Your task to perform on an android device: allow cookies in the chrome app Image 0: 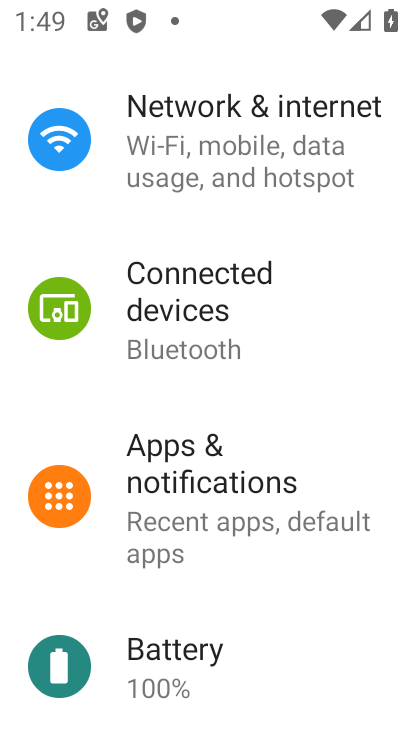
Step 0: press home button
Your task to perform on an android device: allow cookies in the chrome app Image 1: 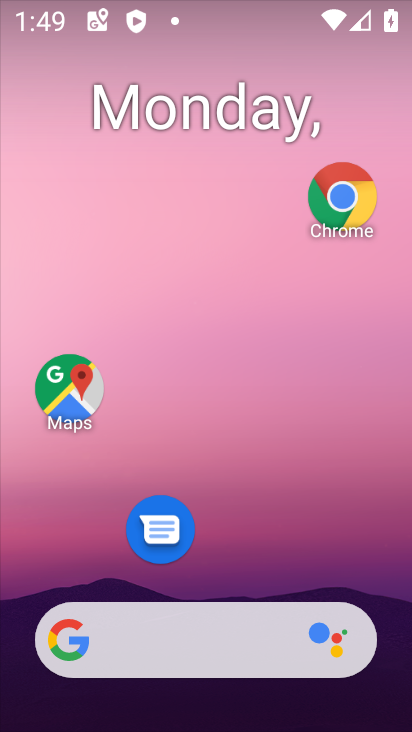
Step 1: click (357, 193)
Your task to perform on an android device: allow cookies in the chrome app Image 2: 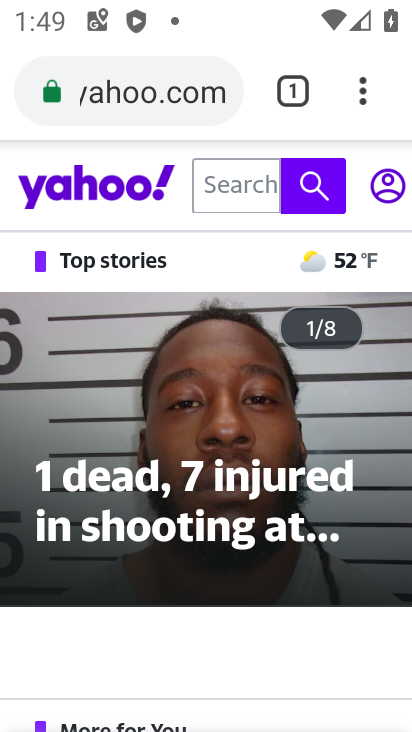
Step 2: click (373, 89)
Your task to perform on an android device: allow cookies in the chrome app Image 3: 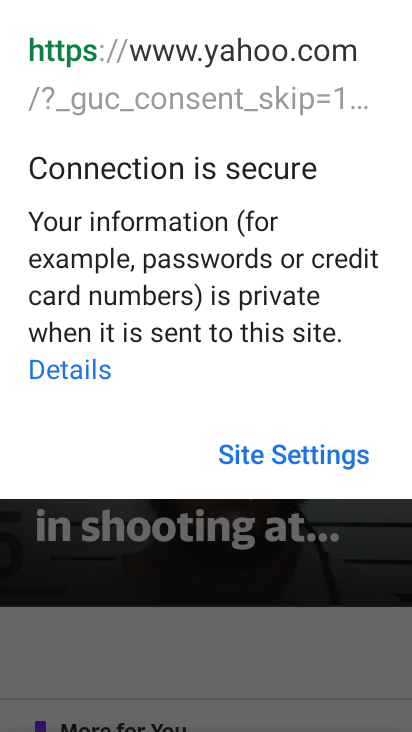
Step 3: drag from (372, 90) to (408, 420)
Your task to perform on an android device: allow cookies in the chrome app Image 4: 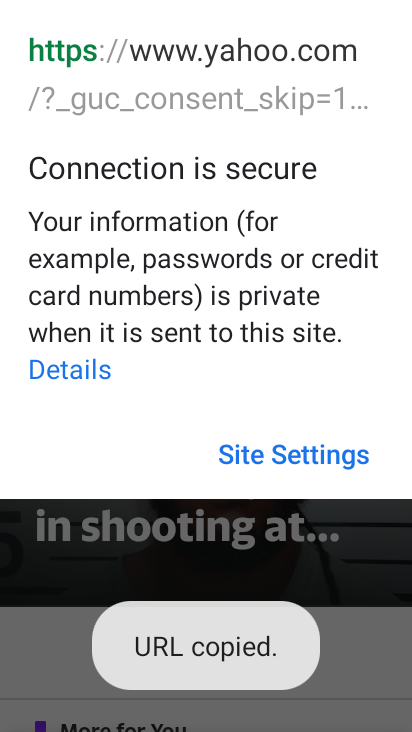
Step 4: click (371, 536)
Your task to perform on an android device: allow cookies in the chrome app Image 5: 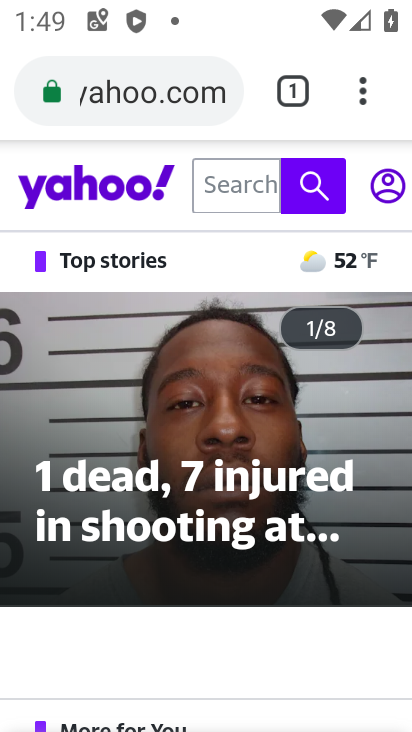
Step 5: click (371, 92)
Your task to perform on an android device: allow cookies in the chrome app Image 6: 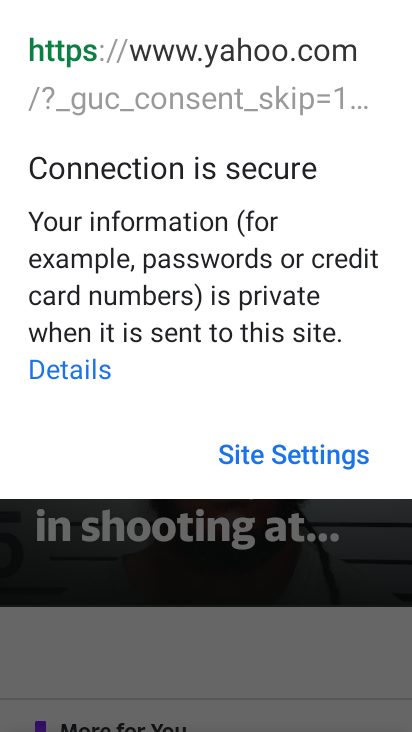
Step 6: click (338, 578)
Your task to perform on an android device: allow cookies in the chrome app Image 7: 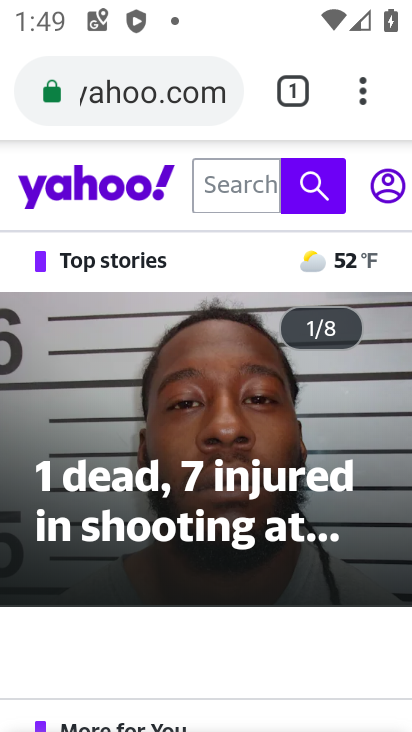
Step 7: click (362, 89)
Your task to perform on an android device: allow cookies in the chrome app Image 8: 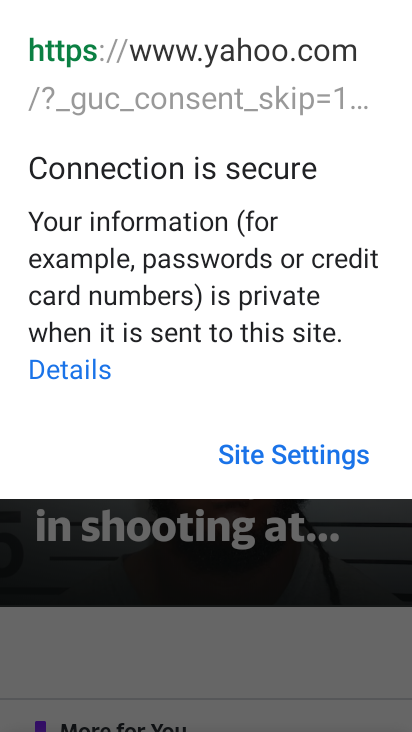
Step 8: click (315, 616)
Your task to perform on an android device: allow cookies in the chrome app Image 9: 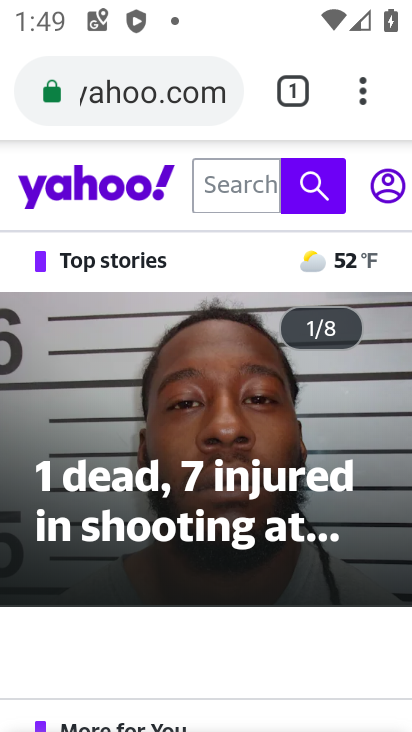
Step 9: drag from (362, 104) to (109, 548)
Your task to perform on an android device: allow cookies in the chrome app Image 10: 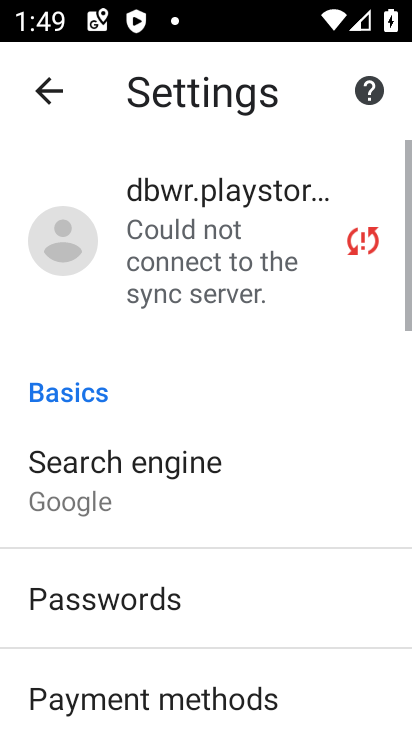
Step 10: drag from (132, 521) to (137, 26)
Your task to perform on an android device: allow cookies in the chrome app Image 11: 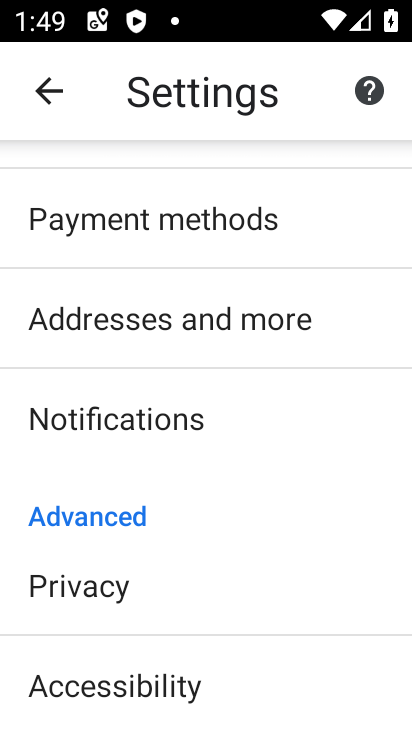
Step 11: drag from (123, 657) to (95, 289)
Your task to perform on an android device: allow cookies in the chrome app Image 12: 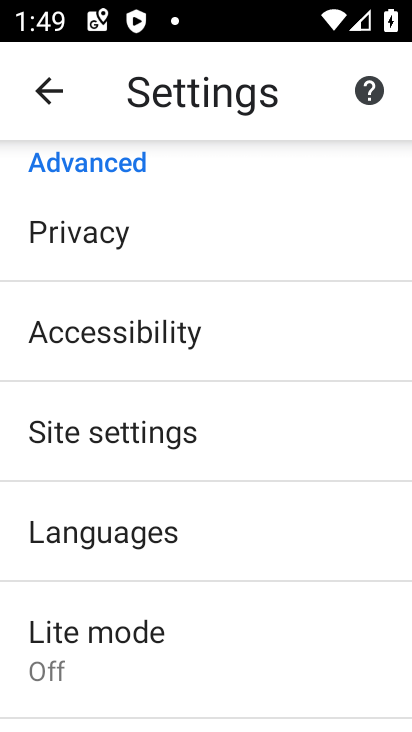
Step 12: click (86, 455)
Your task to perform on an android device: allow cookies in the chrome app Image 13: 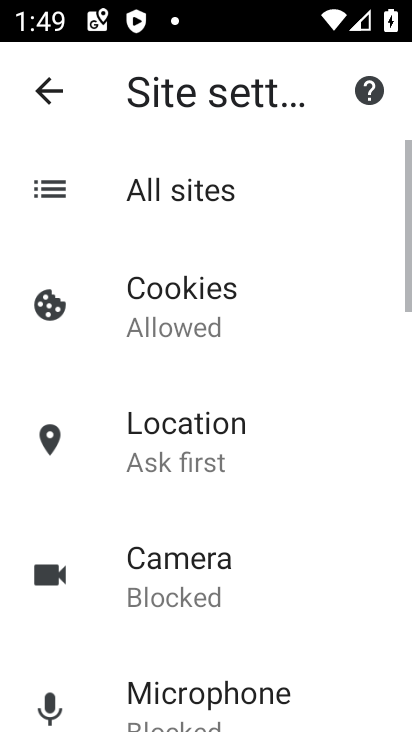
Step 13: click (183, 321)
Your task to perform on an android device: allow cookies in the chrome app Image 14: 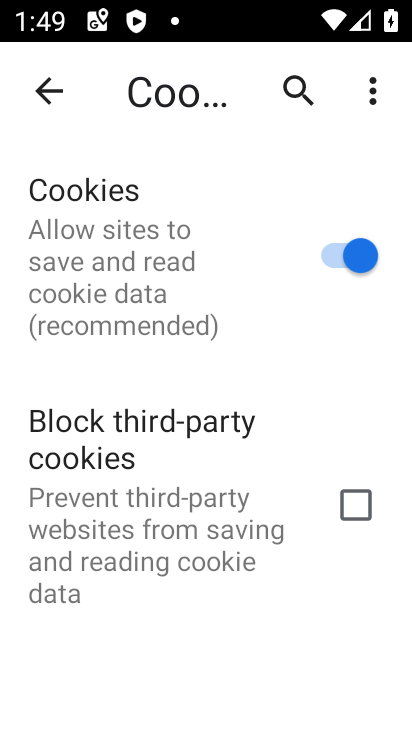
Step 14: task complete